Your task to perform on an android device: turn on bluetooth scan Image 0: 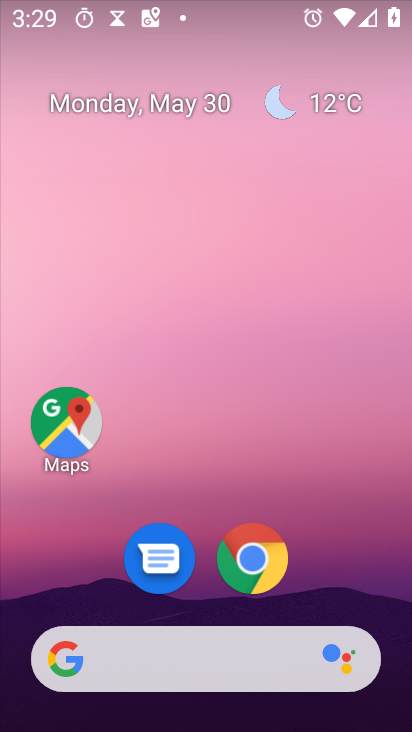
Step 0: drag from (180, 422) to (217, 0)
Your task to perform on an android device: turn on bluetooth scan Image 1: 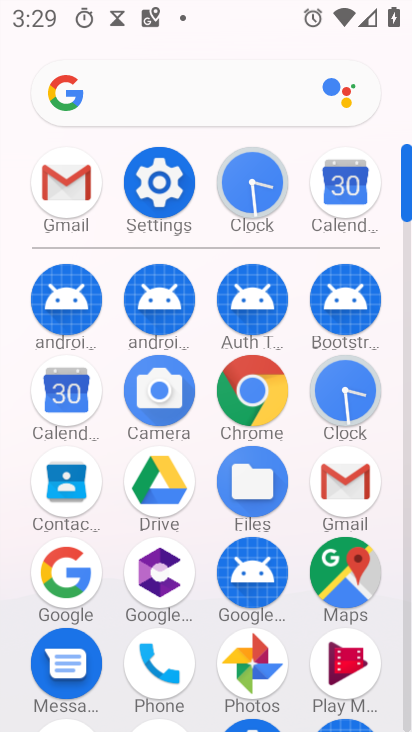
Step 1: click (159, 189)
Your task to perform on an android device: turn on bluetooth scan Image 2: 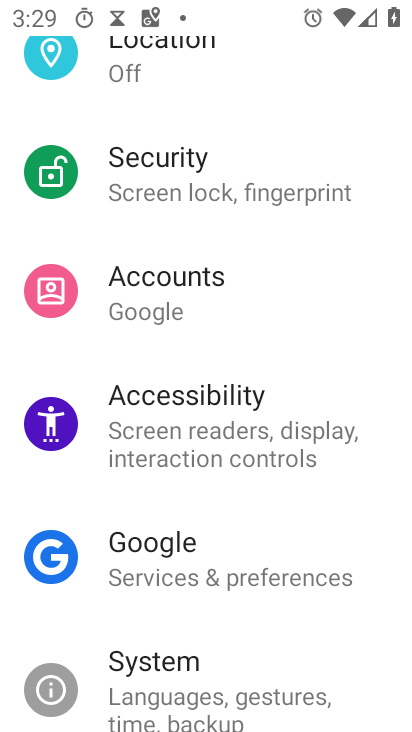
Step 2: drag from (205, 118) to (184, 716)
Your task to perform on an android device: turn on bluetooth scan Image 3: 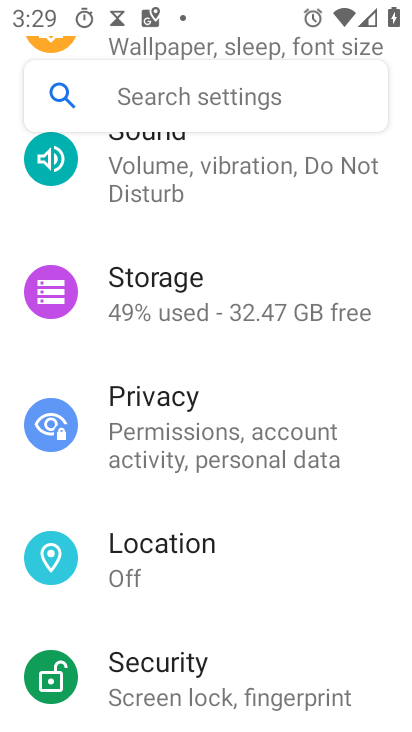
Step 3: drag from (181, 193) to (124, 727)
Your task to perform on an android device: turn on bluetooth scan Image 4: 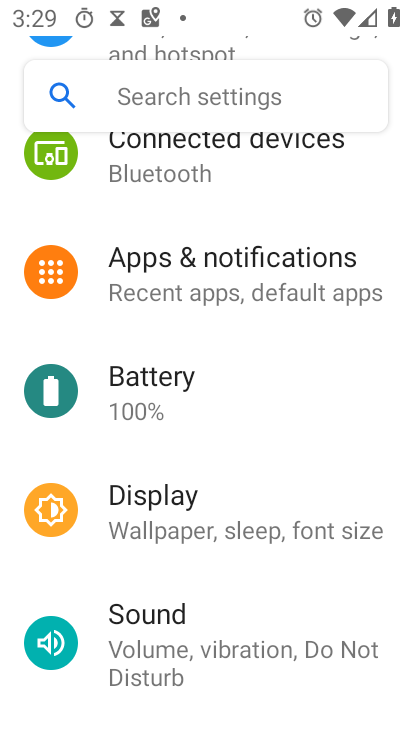
Step 4: click (171, 159)
Your task to perform on an android device: turn on bluetooth scan Image 5: 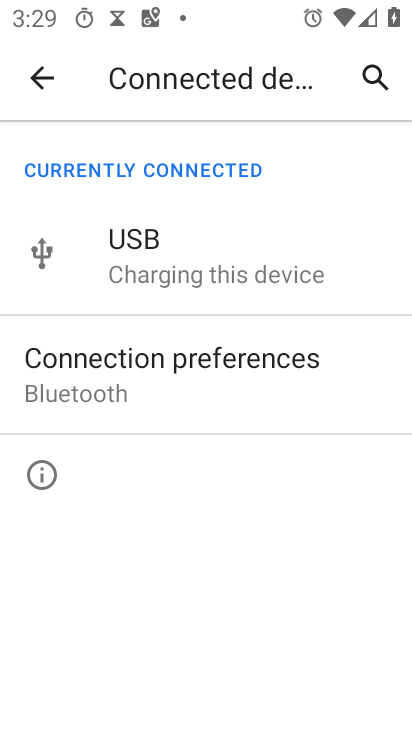
Step 5: click (112, 388)
Your task to perform on an android device: turn on bluetooth scan Image 6: 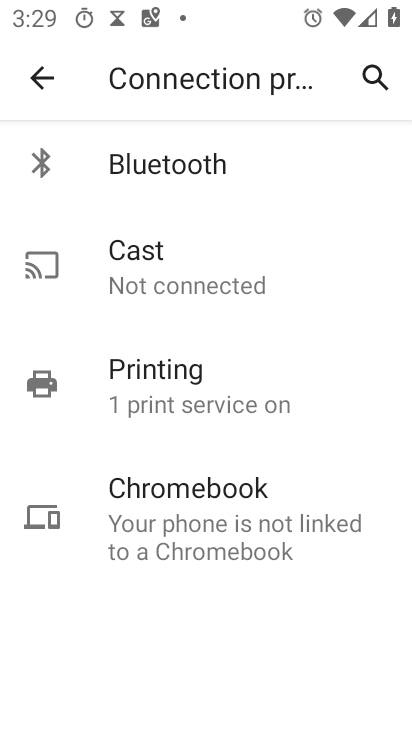
Step 6: click (148, 159)
Your task to perform on an android device: turn on bluetooth scan Image 7: 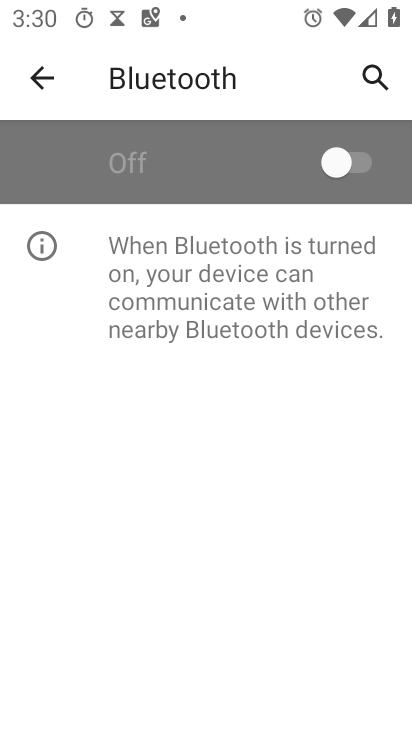
Step 7: task complete